Your task to perform on an android device: Open Yahoo.com Image 0: 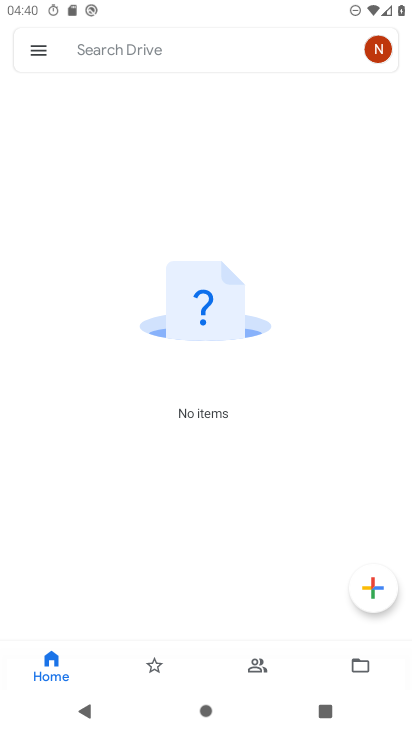
Step 0: press home button
Your task to perform on an android device: Open Yahoo.com Image 1: 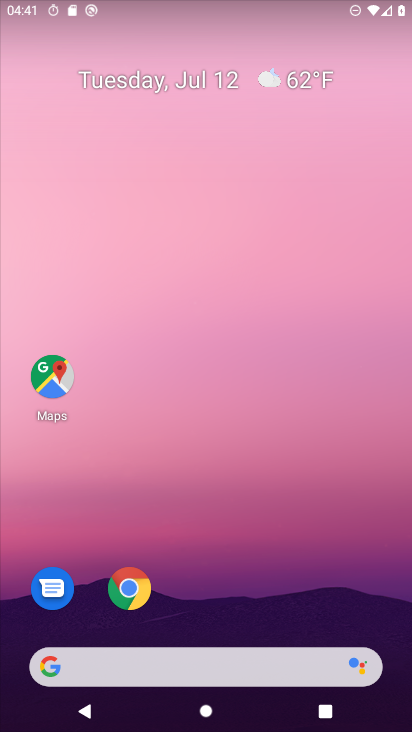
Step 1: click (139, 584)
Your task to perform on an android device: Open Yahoo.com Image 2: 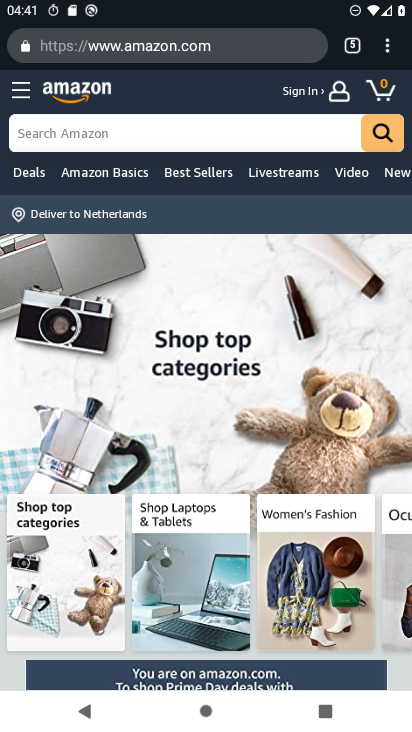
Step 2: click (204, 43)
Your task to perform on an android device: Open Yahoo.com Image 3: 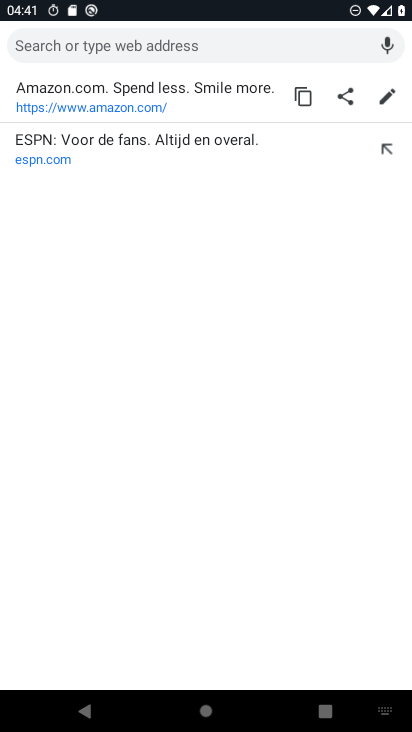
Step 3: type "yahoo.com"
Your task to perform on an android device: Open Yahoo.com Image 4: 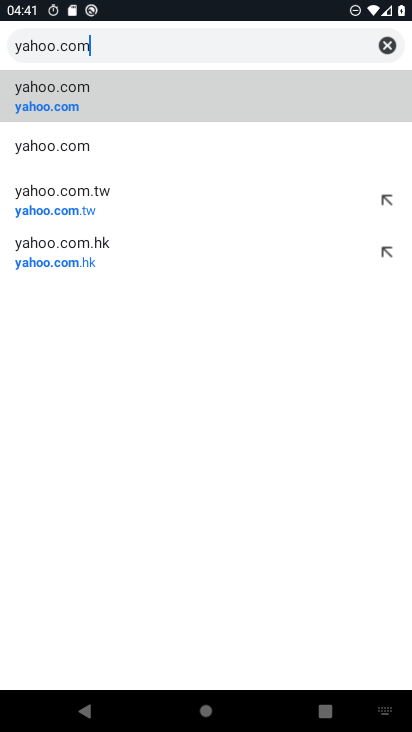
Step 4: click (90, 86)
Your task to perform on an android device: Open Yahoo.com Image 5: 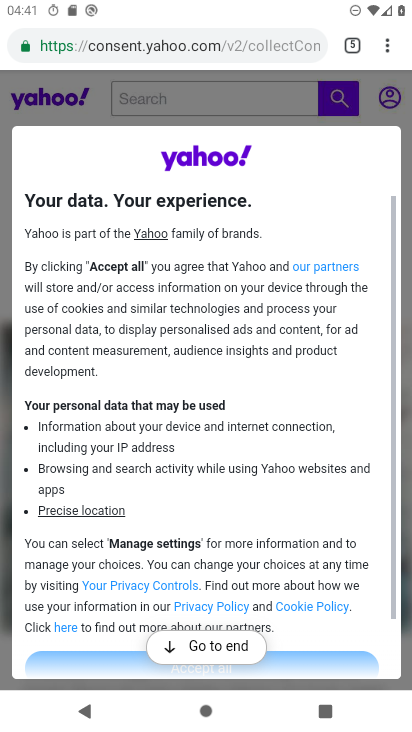
Step 5: task complete